Your task to perform on an android device: toggle priority inbox in the gmail app Image 0: 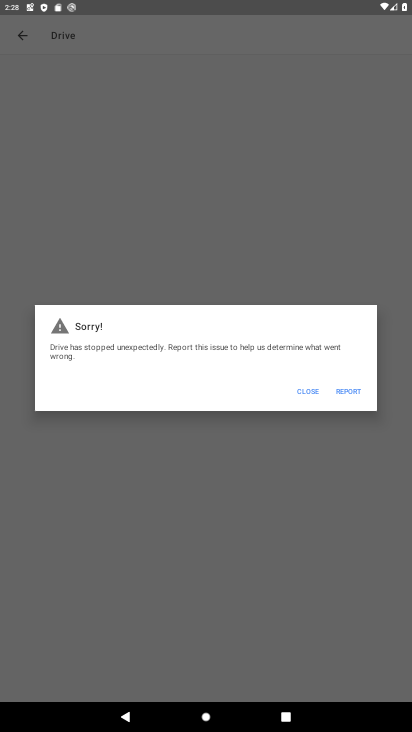
Step 0: press home button
Your task to perform on an android device: toggle priority inbox in the gmail app Image 1: 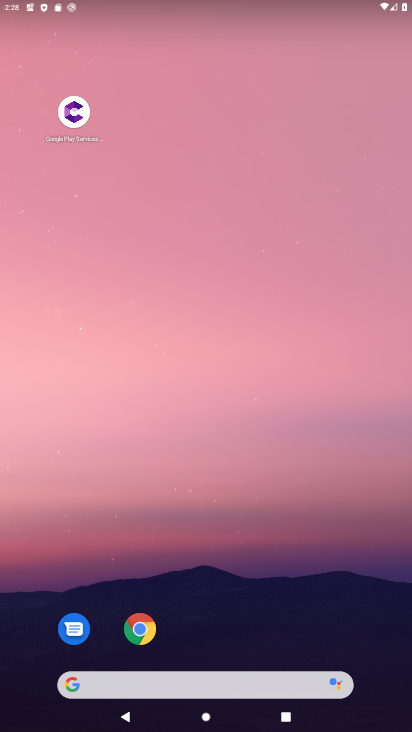
Step 1: drag from (227, 638) to (242, 171)
Your task to perform on an android device: toggle priority inbox in the gmail app Image 2: 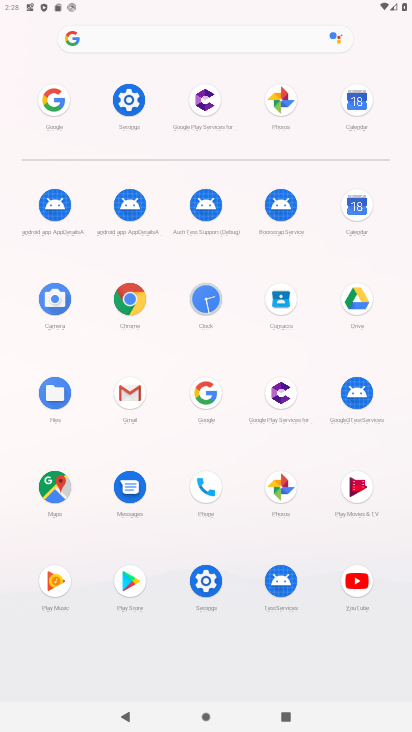
Step 2: click (124, 389)
Your task to perform on an android device: toggle priority inbox in the gmail app Image 3: 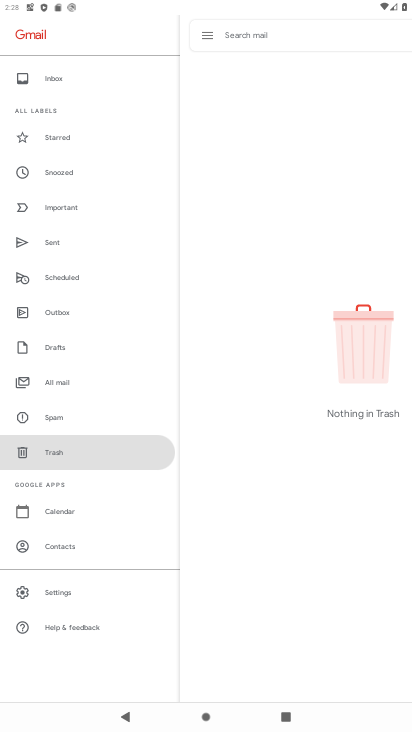
Step 3: click (93, 592)
Your task to perform on an android device: toggle priority inbox in the gmail app Image 4: 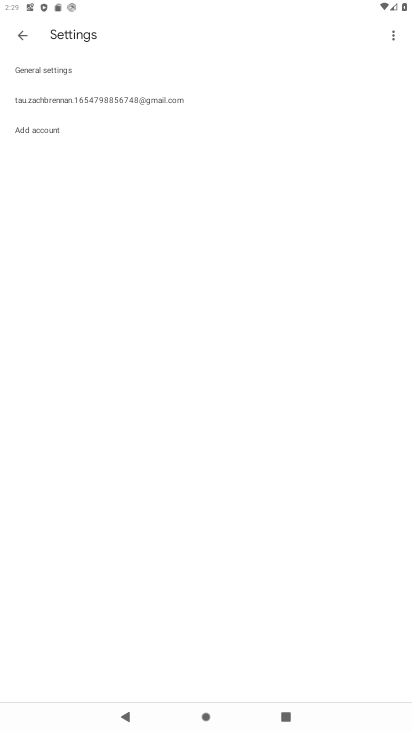
Step 4: click (120, 106)
Your task to perform on an android device: toggle priority inbox in the gmail app Image 5: 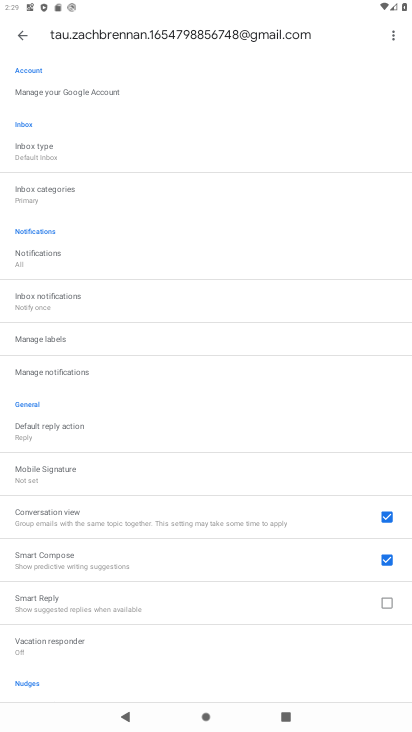
Step 5: click (75, 159)
Your task to perform on an android device: toggle priority inbox in the gmail app Image 6: 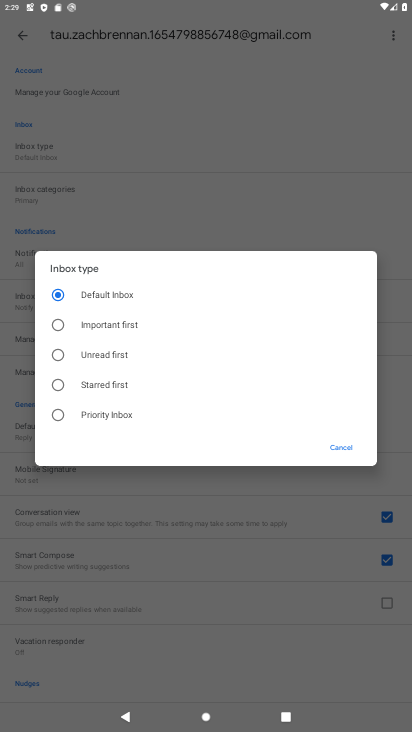
Step 6: click (121, 417)
Your task to perform on an android device: toggle priority inbox in the gmail app Image 7: 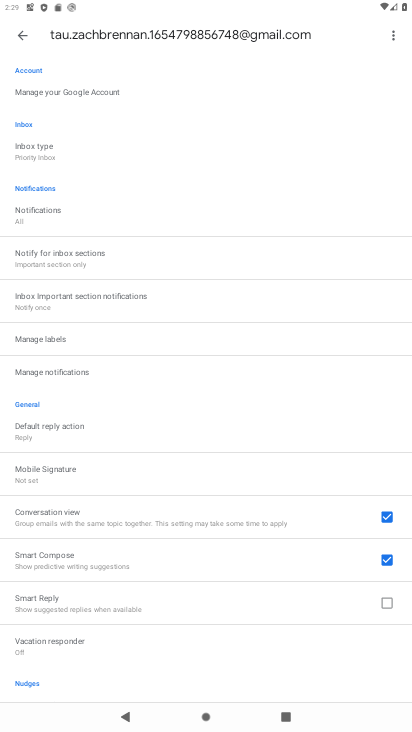
Step 7: task complete